Your task to perform on an android device: toggle location history Image 0: 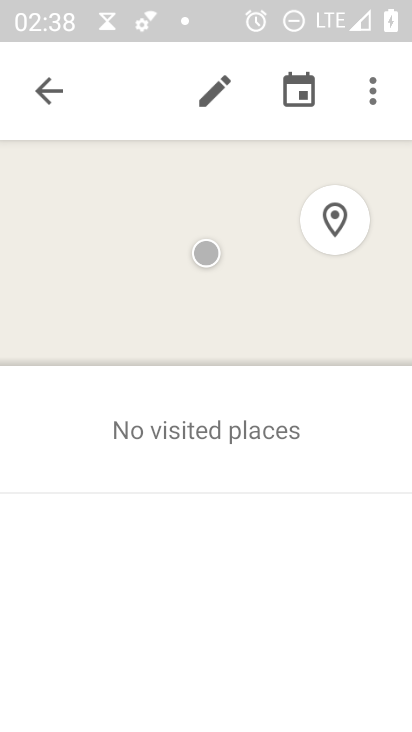
Step 0: press home button
Your task to perform on an android device: toggle location history Image 1: 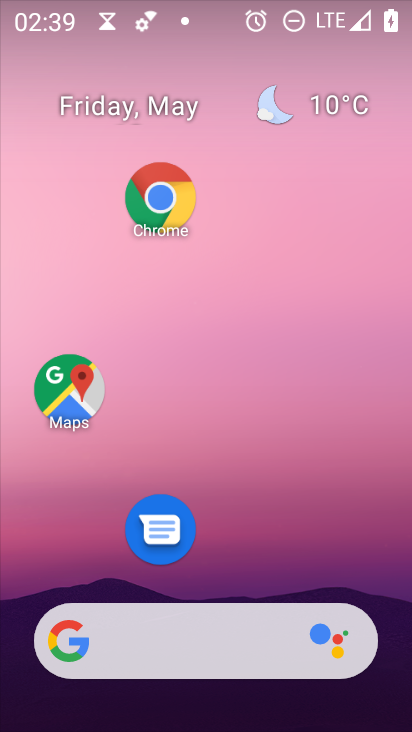
Step 1: click (284, 302)
Your task to perform on an android device: toggle location history Image 2: 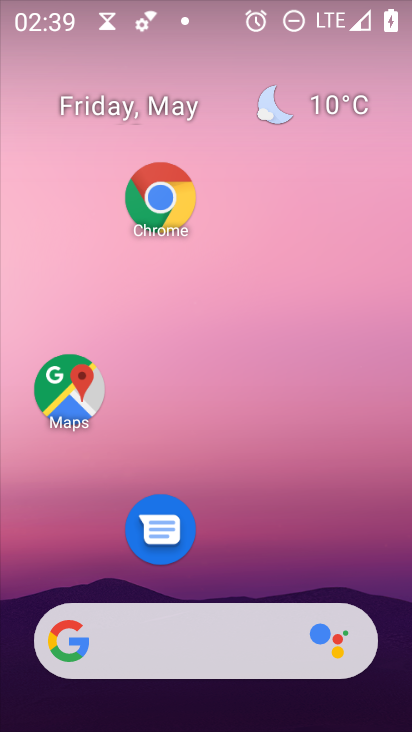
Step 2: drag from (152, 542) to (242, 235)
Your task to perform on an android device: toggle location history Image 3: 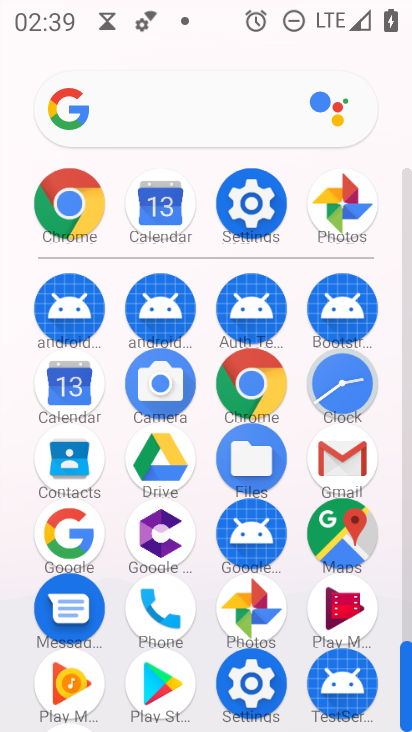
Step 3: click (247, 203)
Your task to perform on an android device: toggle location history Image 4: 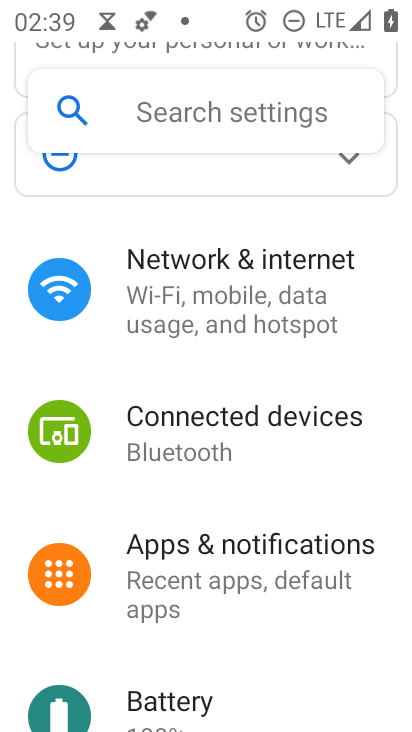
Step 4: drag from (199, 613) to (248, 193)
Your task to perform on an android device: toggle location history Image 5: 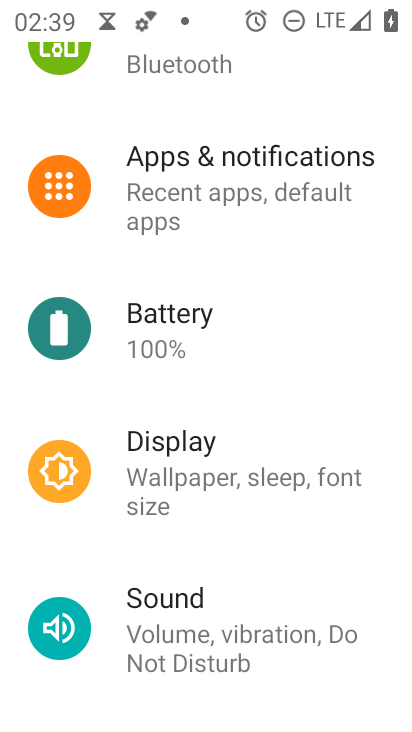
Step 5: drag from (196, 571) to (270, 193)
Your task to perform on an android device: toggle location history Image 6: 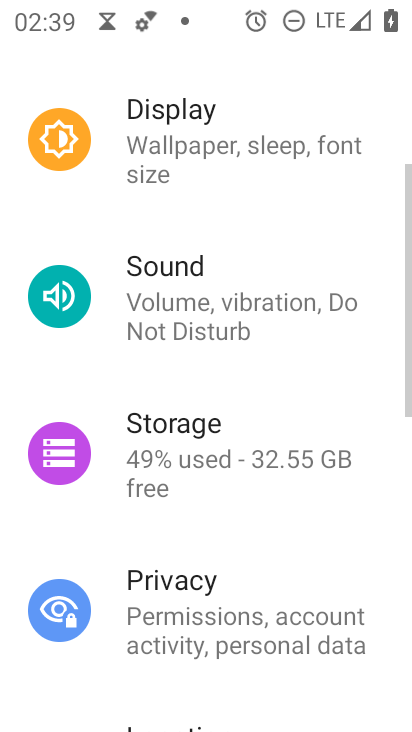
Step 6: drag from (149, 608) to (252, 138)
Your task to perform on an android device: toggle location history Image 7: 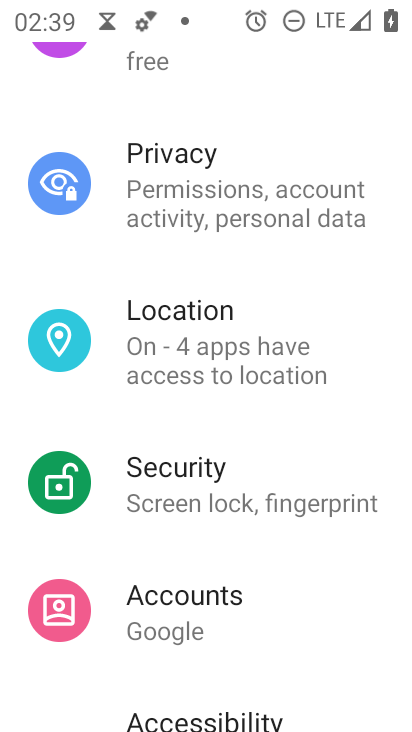
Step 7: click (189, 348)
Your task to perform on an android device: toggle location history Image 8: 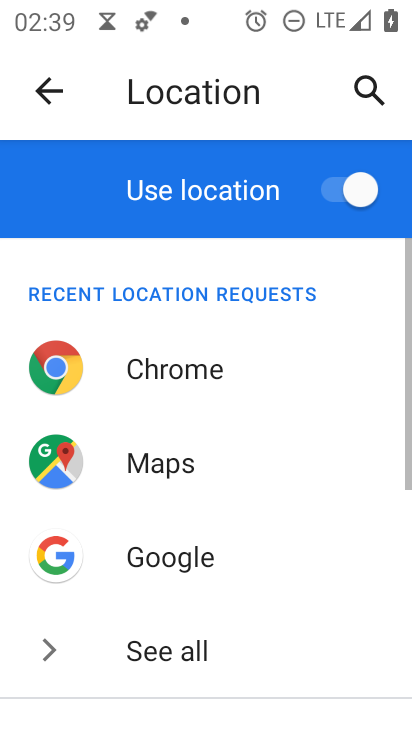
Step 8: drag from (234, 614) to (252, 185)
Your task to perform on an android device: toggle location history Image 9: 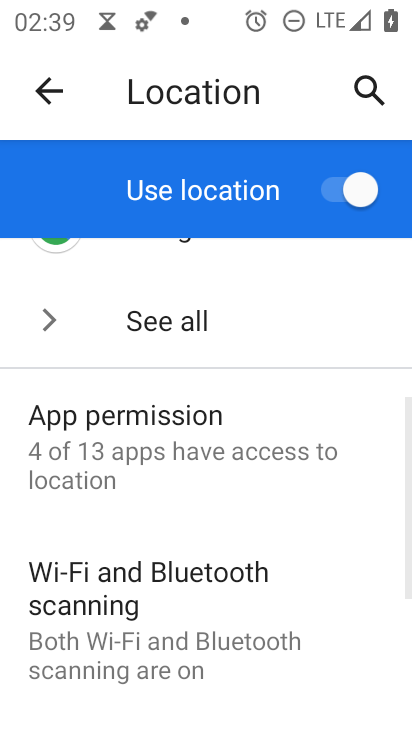
Step 9: drag from (126, 501) to (217, 219)
Your task to perform on an android device: toggle location history Image 10: 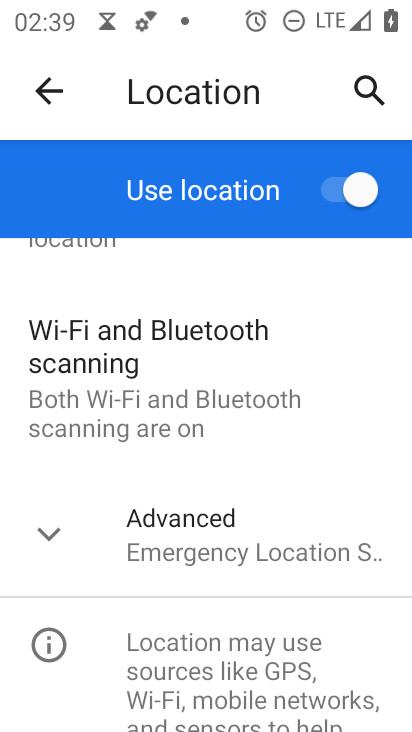
Step 10: click (168, 526)
Your task to perform on an android device: toggle location history Image 11: 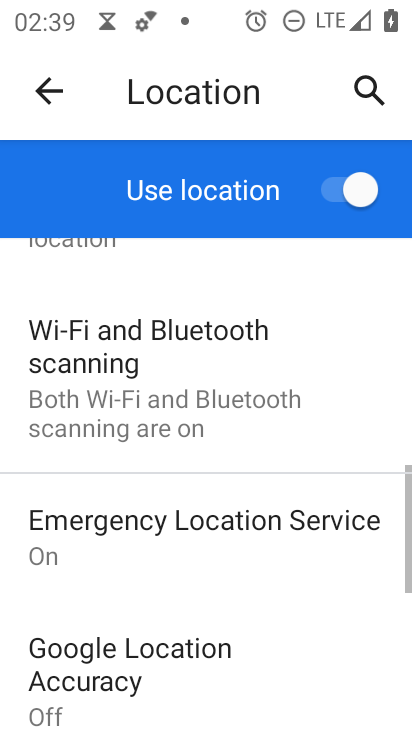
Step 11: drag from (208, 612) to (235, 346)
Your task to perform on an android device: toggle location history Image 12: 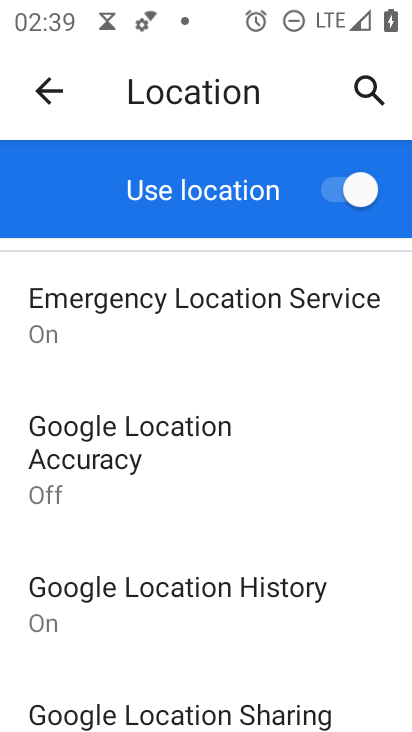
Step 12: click (151, 571)
Your task to perform on an android device: toggle location history Image 13: 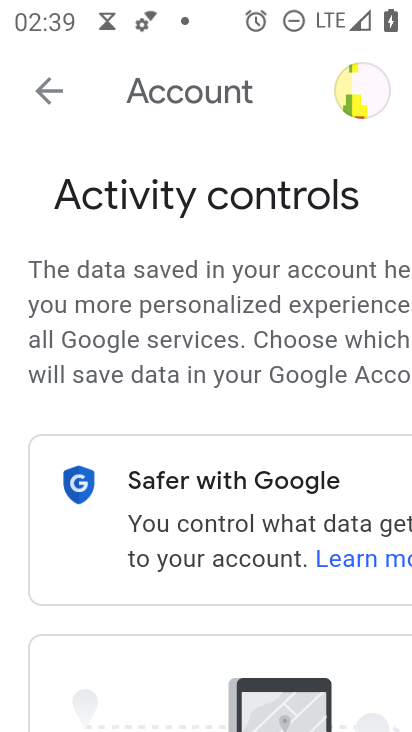
Step 13: drag from (288, 547) to (319, 216)
Your task to perform on an android device: toggle location history Image 14: 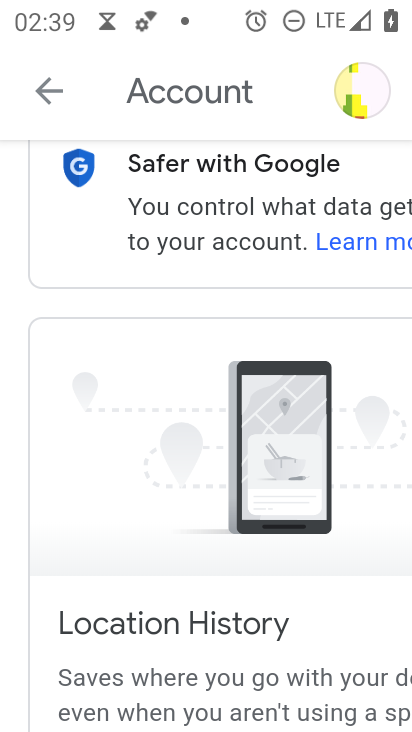
Step 14: drag from (198, 631) to (293, 262)
Your task to perform on an android device: toggle location history Image 15: 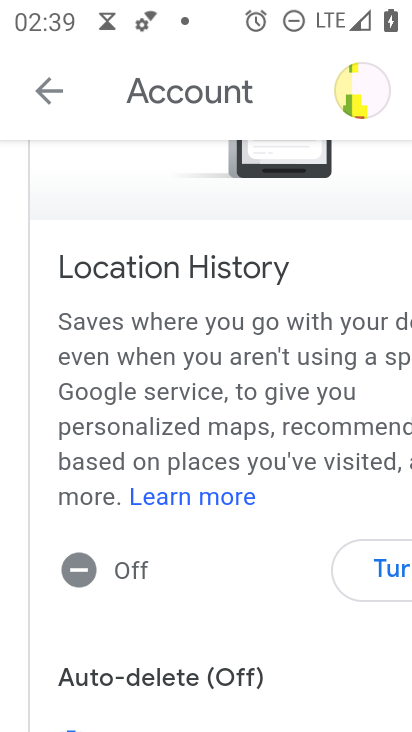
Step 15: click (363, 549)
Your task to perform on an android device: toggle location history Image 16: 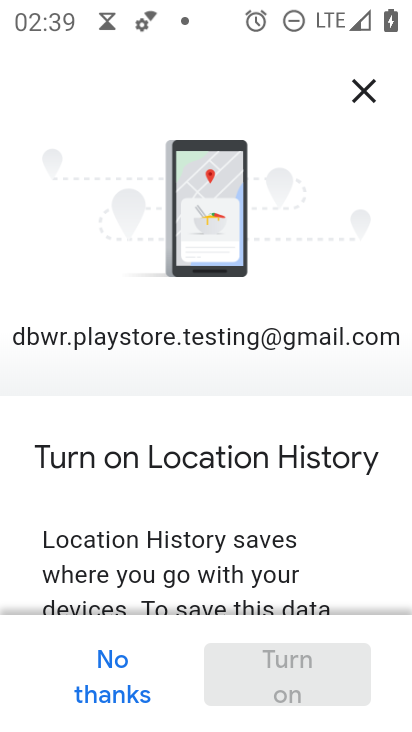
Step 16: task complete